Your task to perform on an android device: Go to Google Image 0: 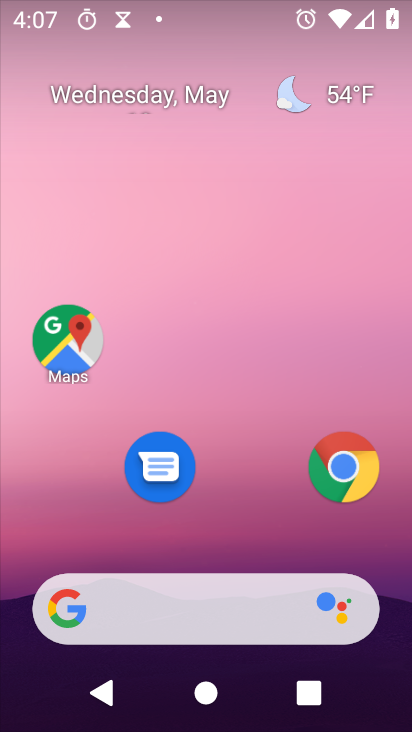
Step 0: drag from (282, 520) to (190, 128)
Your task to perform on an android device: Go to Google Image 1: 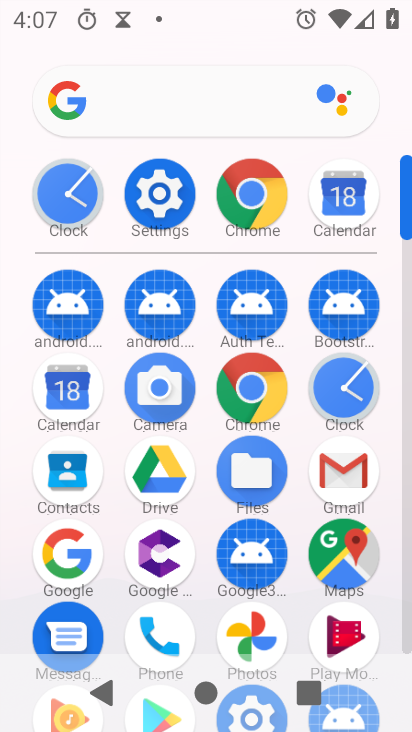
Step 1: click (33, 547)
Your task to perform on an android device: Go to Google Image 2: 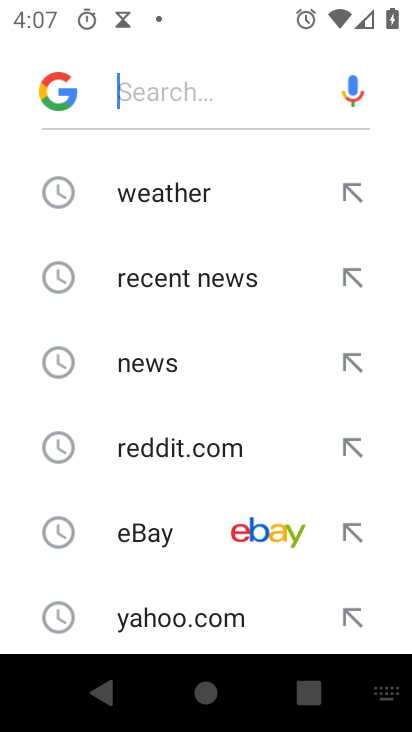
Step 2: task complete